Your task to perform on an android device: open app "File Manager" (install if not already installed) Image 0: 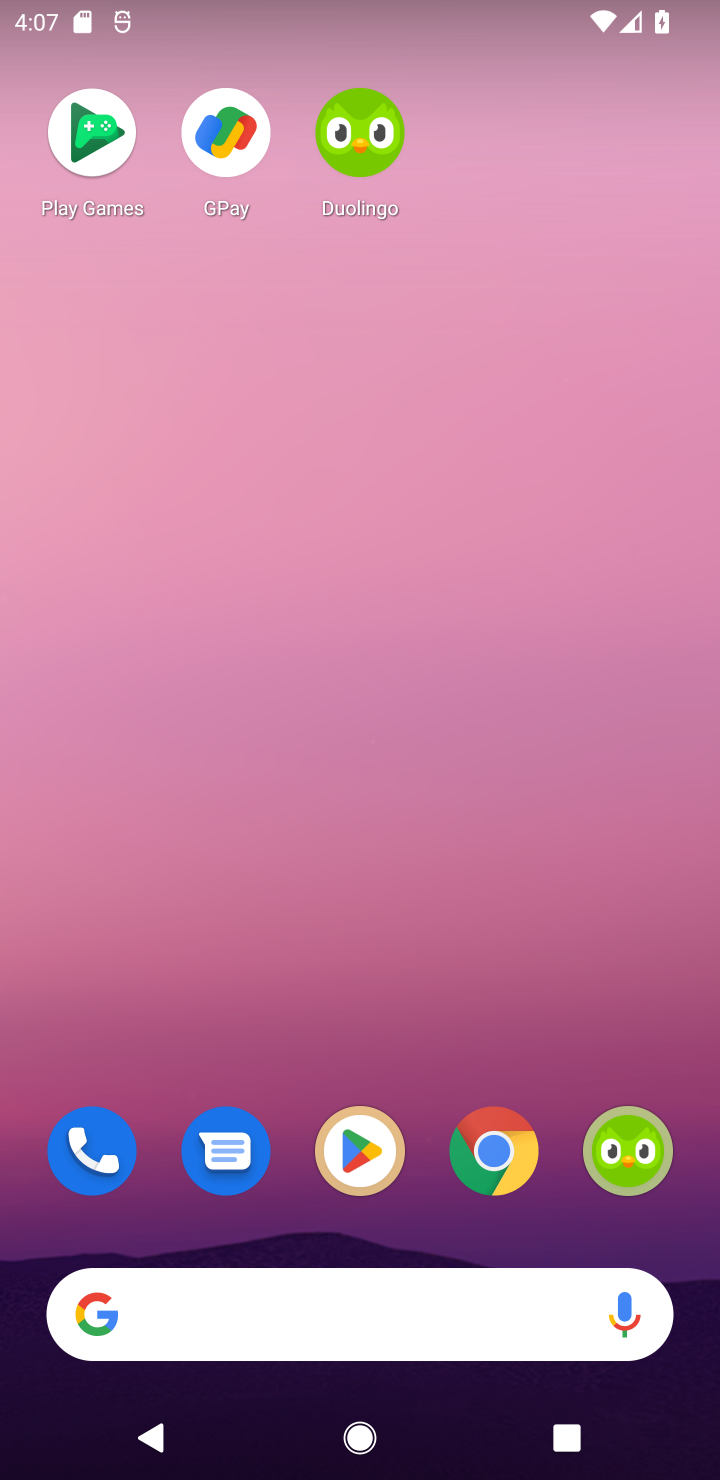
Step 0: click (374, 1169)
Your task to perform on an android device: open app "File Manager" (install if not already installed) Image 1: 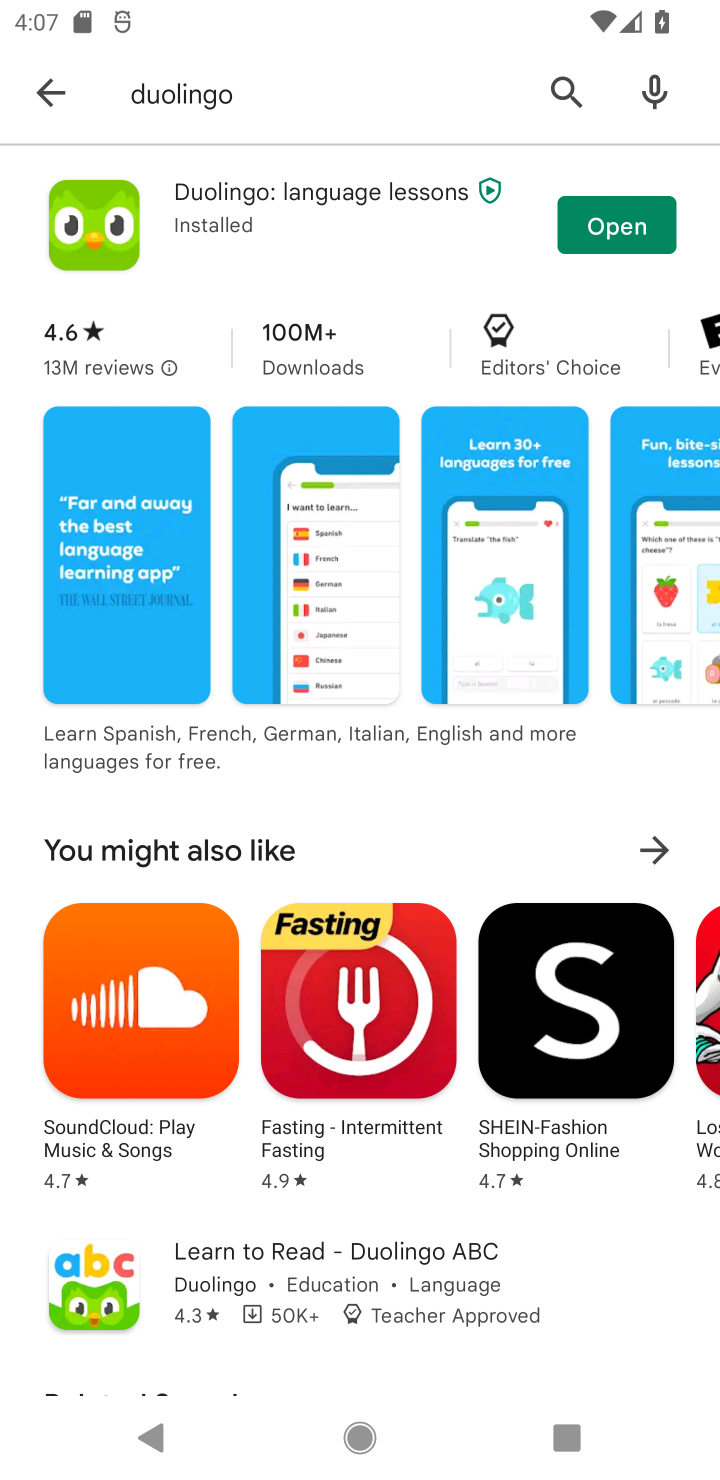
Step 1: click (31, 118)
Your task to perform on an android device: open app "File Manager" (install if not already installed) Image 2: 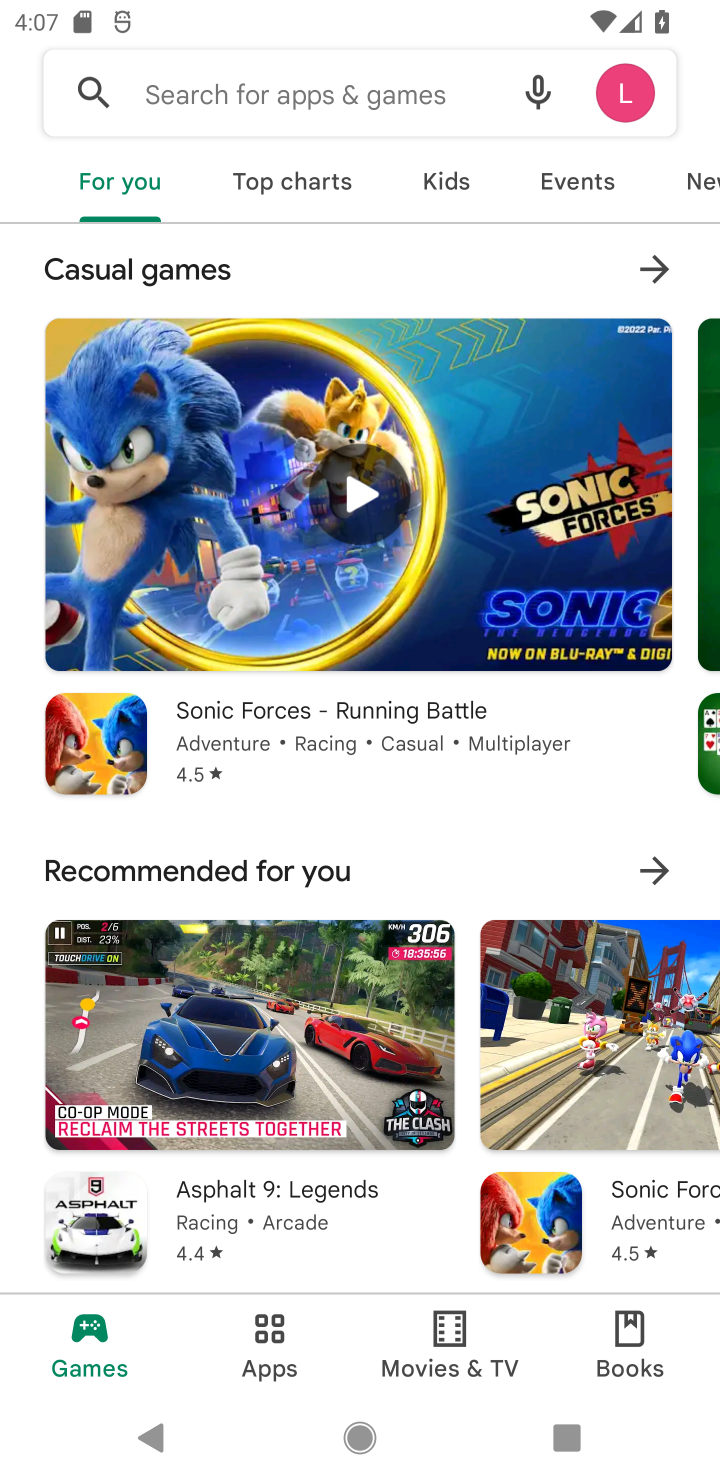
Step 2: click (288, 113)
Your task to perform on an android device: open app "File Manager" (install if not already installed) Image 3: 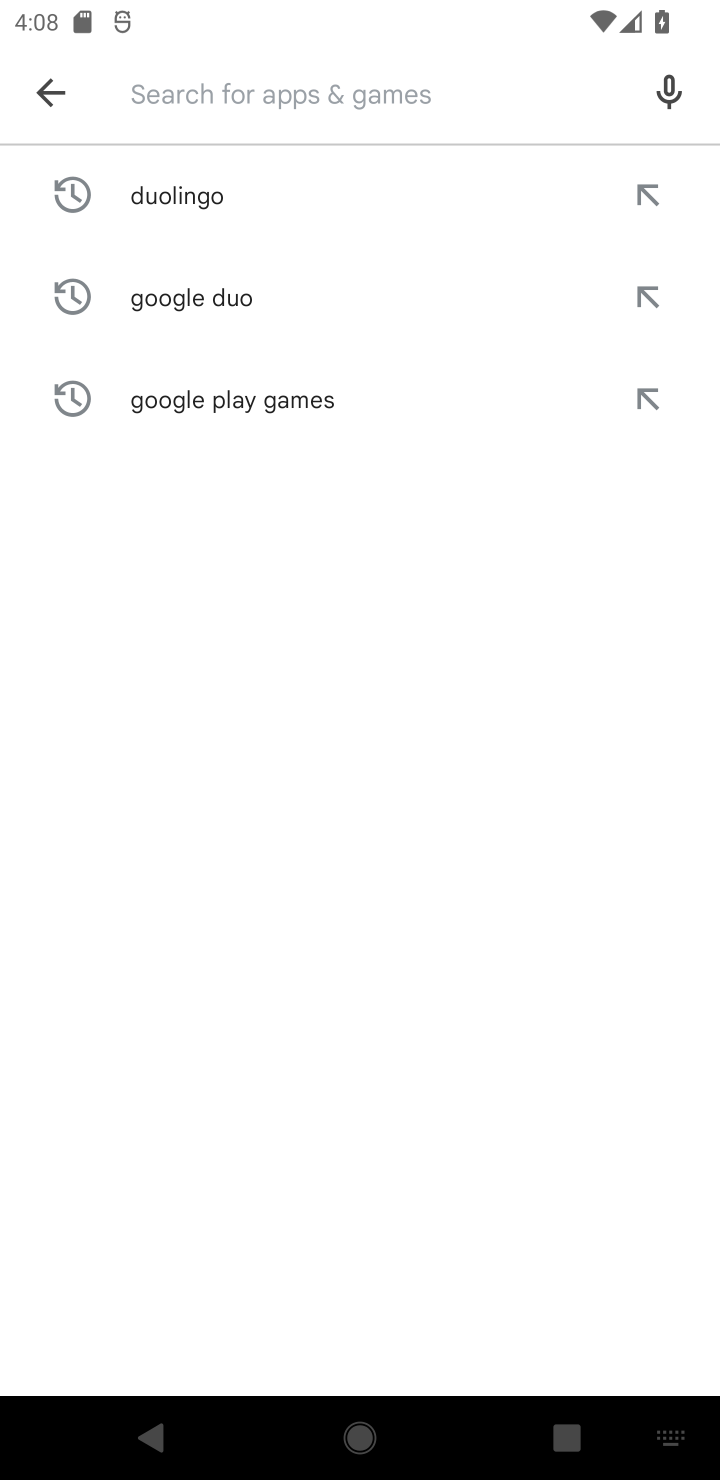
Step 3: type "File Manager"
Your task to perform on an android device: open app "File Manager" (install if not already installed) Image 4: 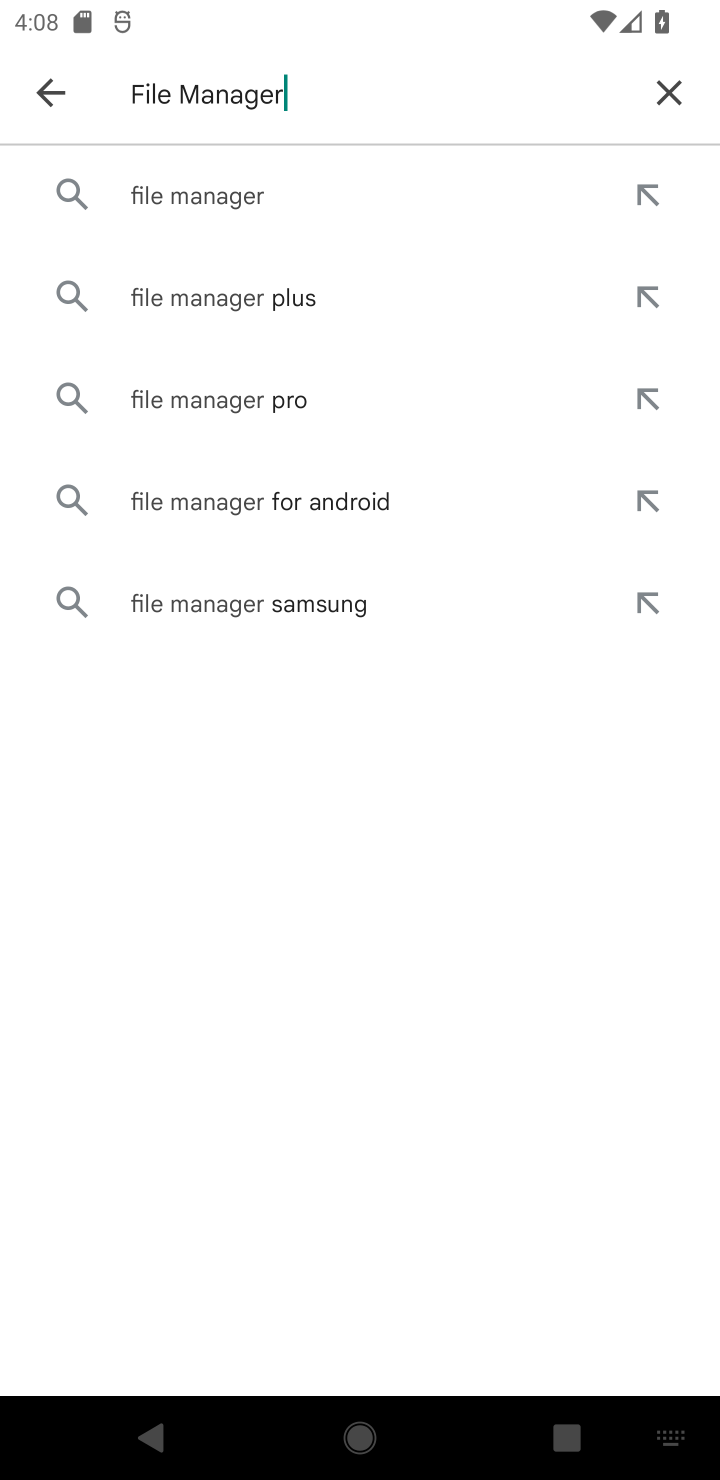
Step 4: click (176, 197)
Your task to perform on an android device: open app "File Manager" (install if not already installed) Image 5: 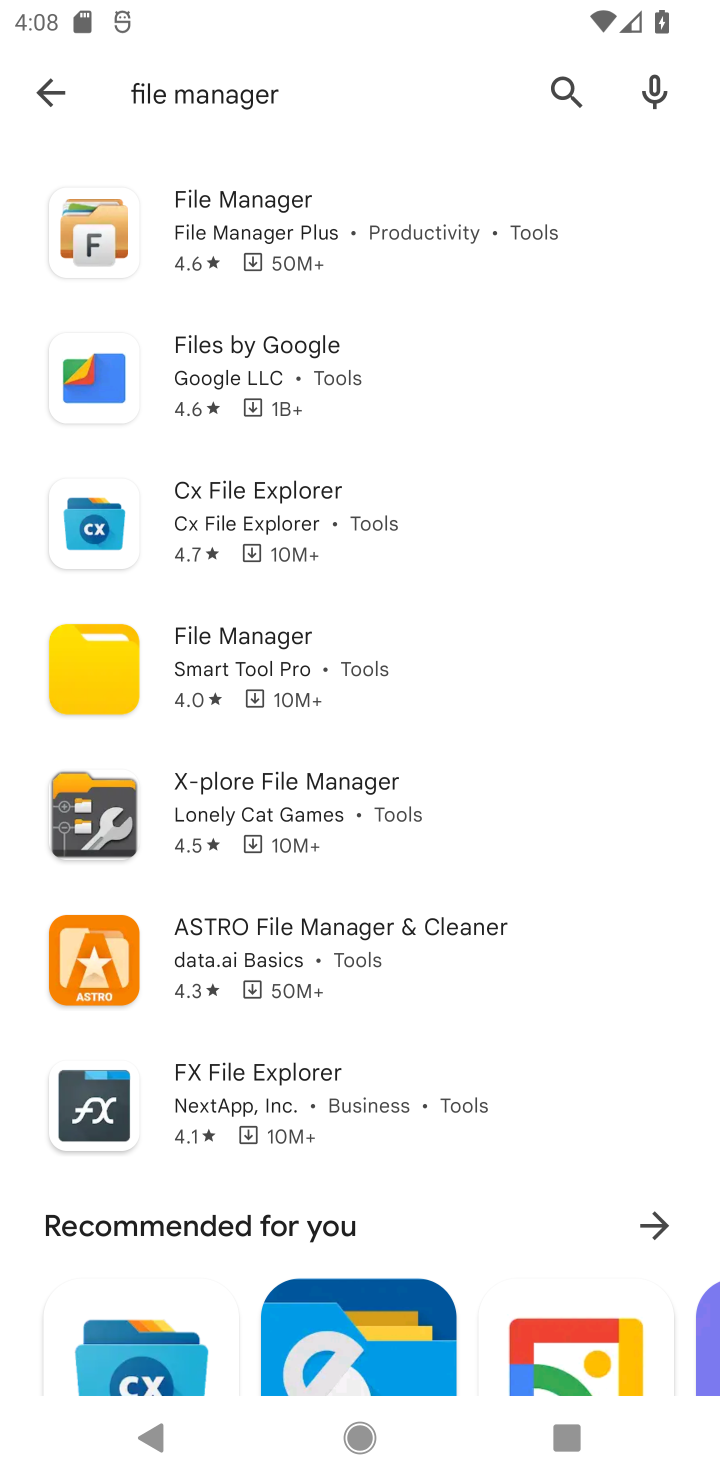
Step 5: click (176, 197)
Your task to perform on an android device: open app "File Manager" (install if not already installed) Image 6: 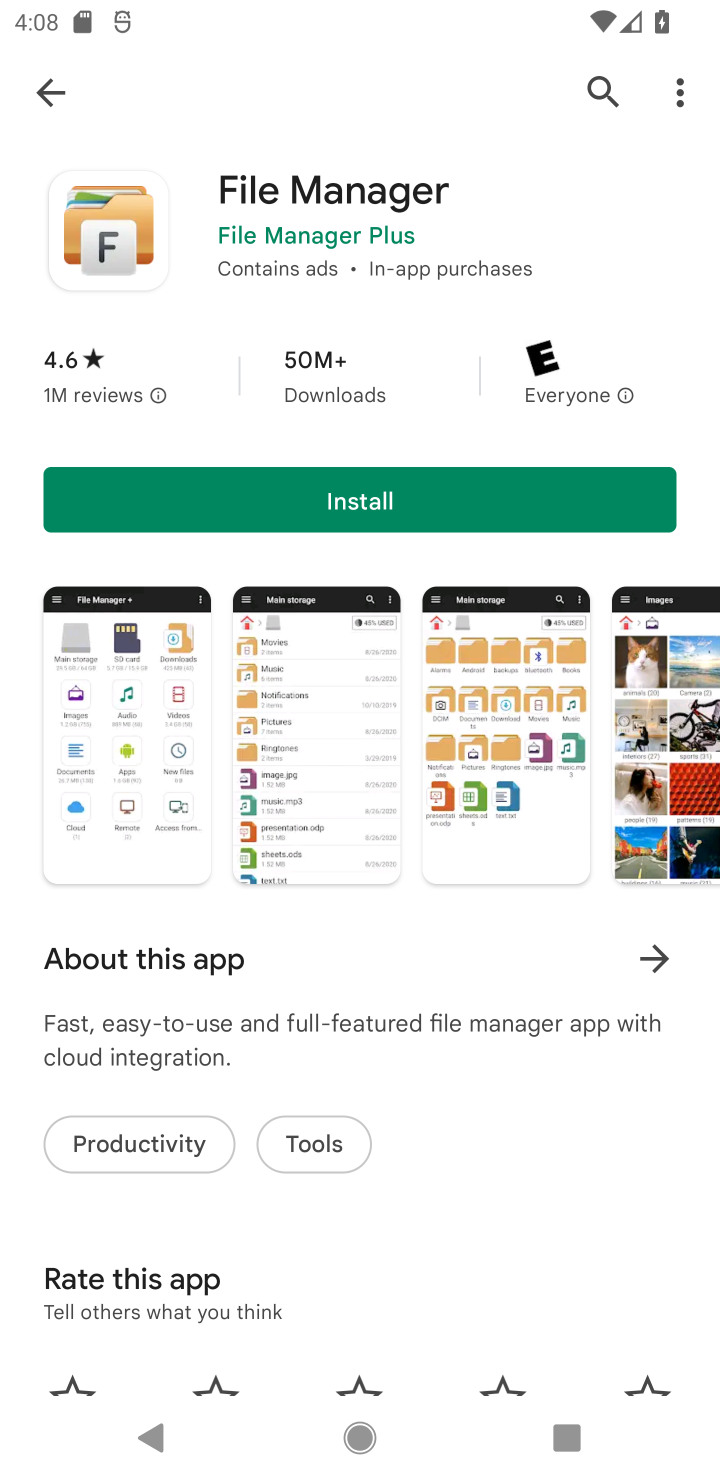
Step 6: click (184, 492)
Your task to perform on an android device: open app "File Manager" (install if not already installed) Image 7: 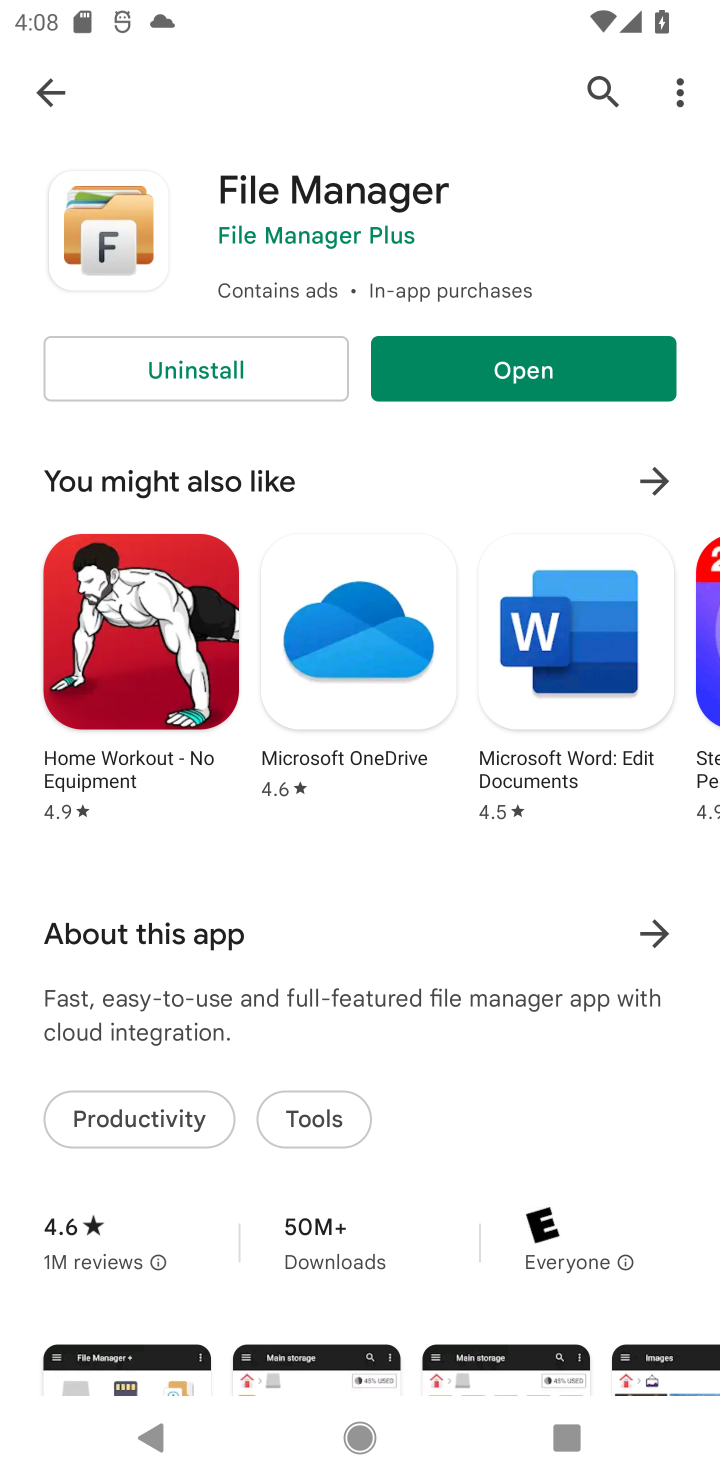
Step 7: click (490, 344)
Your task to perform on an android device: open app "File Manager" (install if not already installed) Image 8: 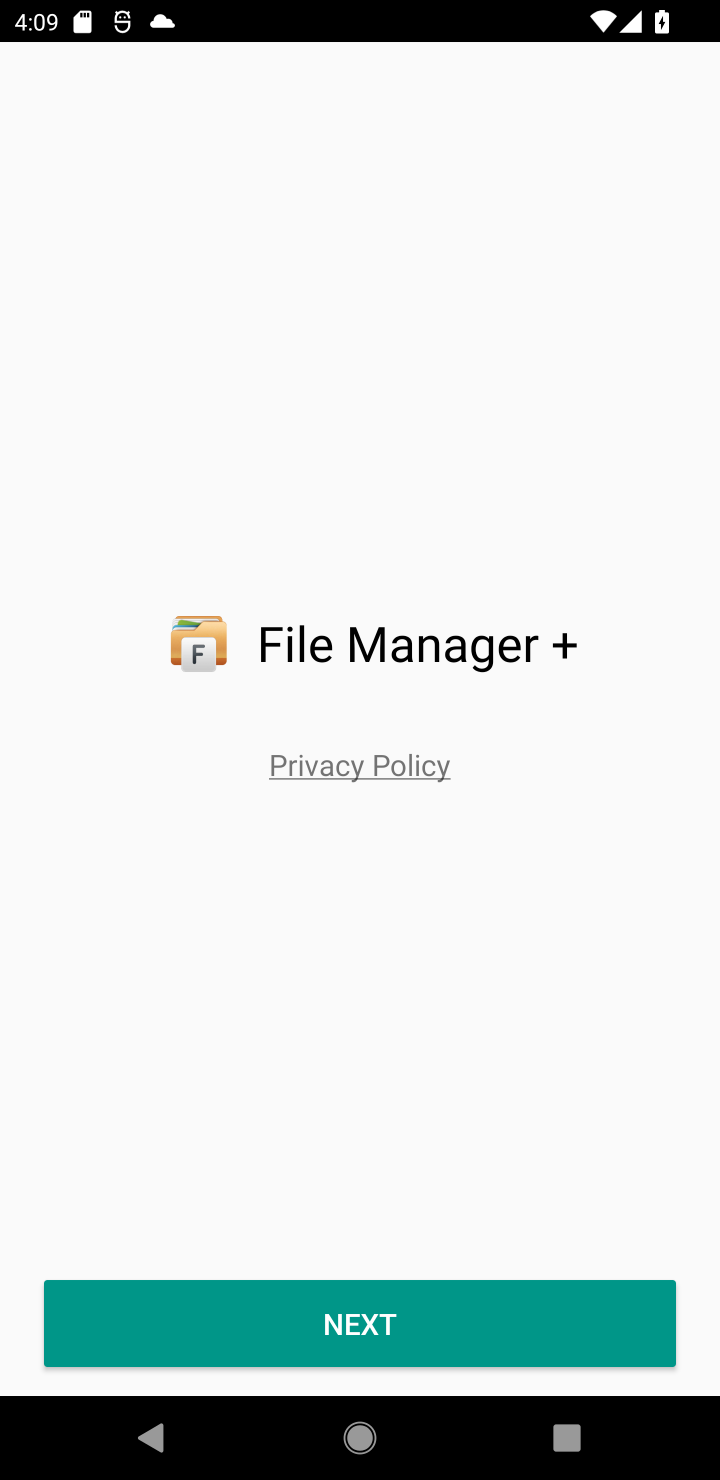
Step 8: click (341, 1320)
Your task to perform on an android device: open app "File Manager" (install if not already installed) Image 9: 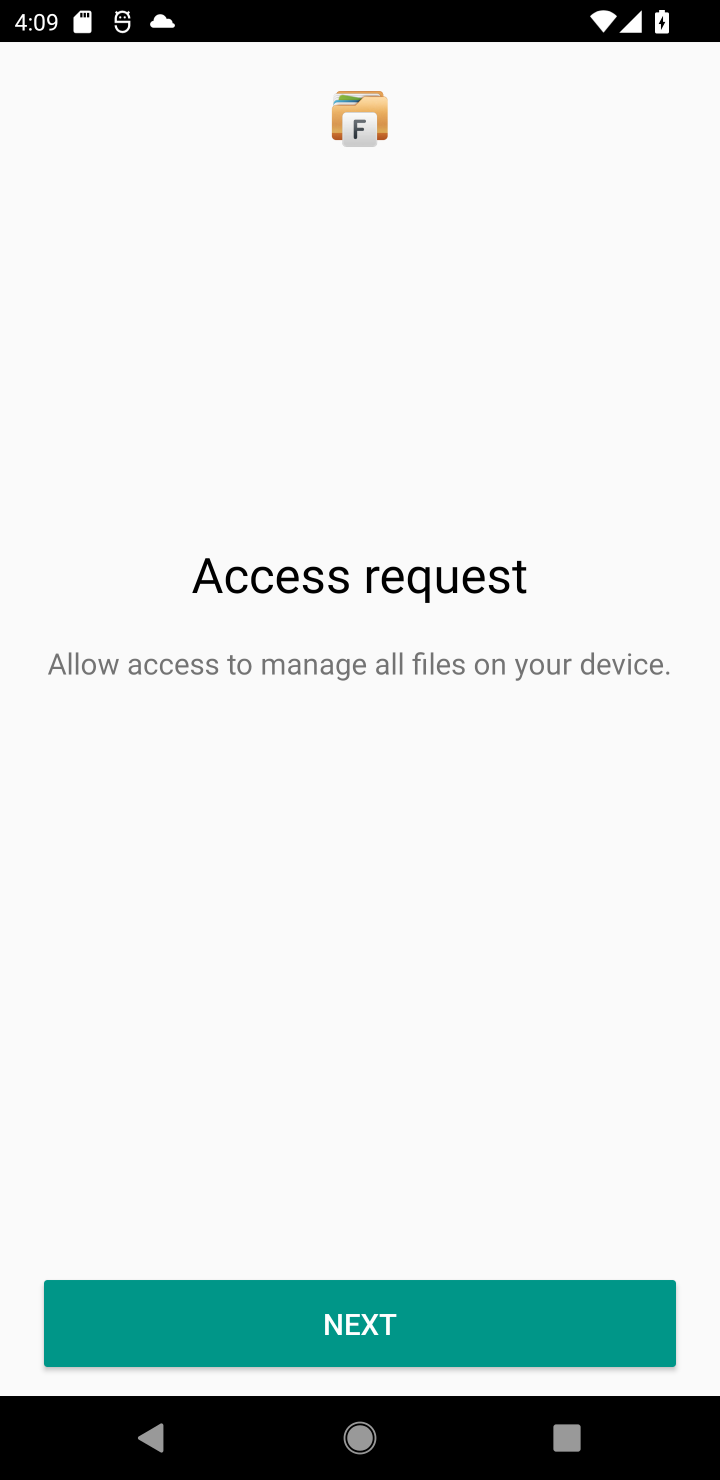
Step 9: click (481, 1341)
Your task to perform on an android device: open app "File Manager" (install if not already installed) Image 10: 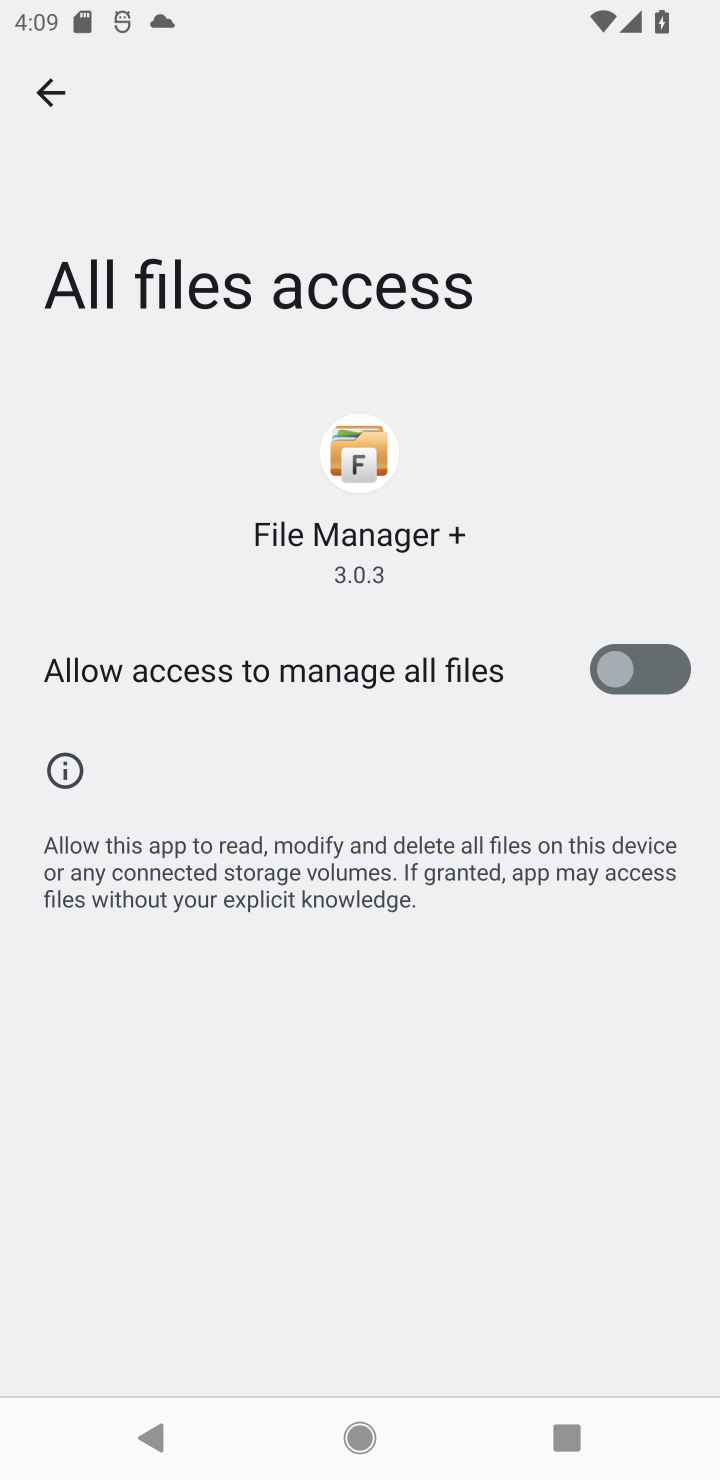
Step 10: click (613, 671)
Your task to perform on an android device: open app "File Manager" (install if not already installed) Image 11: 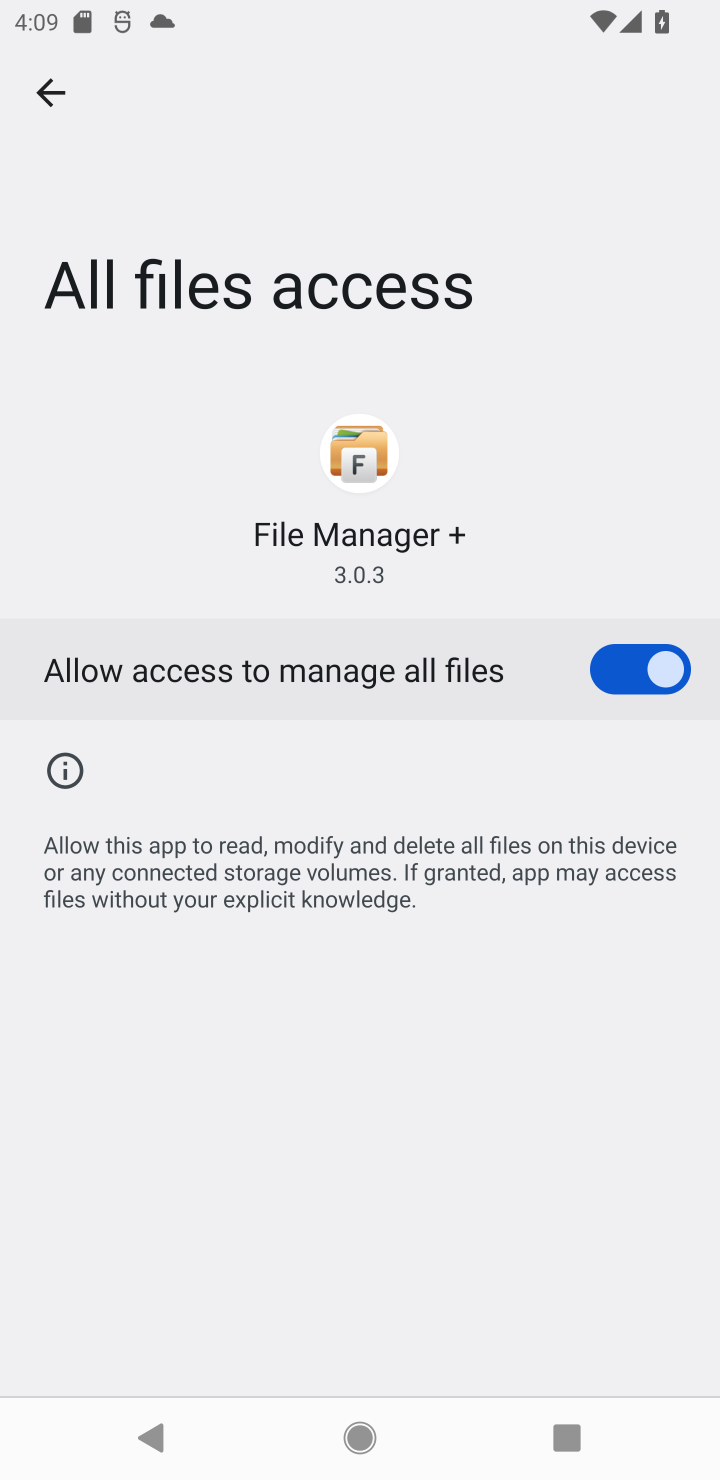
Step 11: click (613, 671)
Your task to perform on an android device: open app "File Manager" (install if not already installed) Image 12: 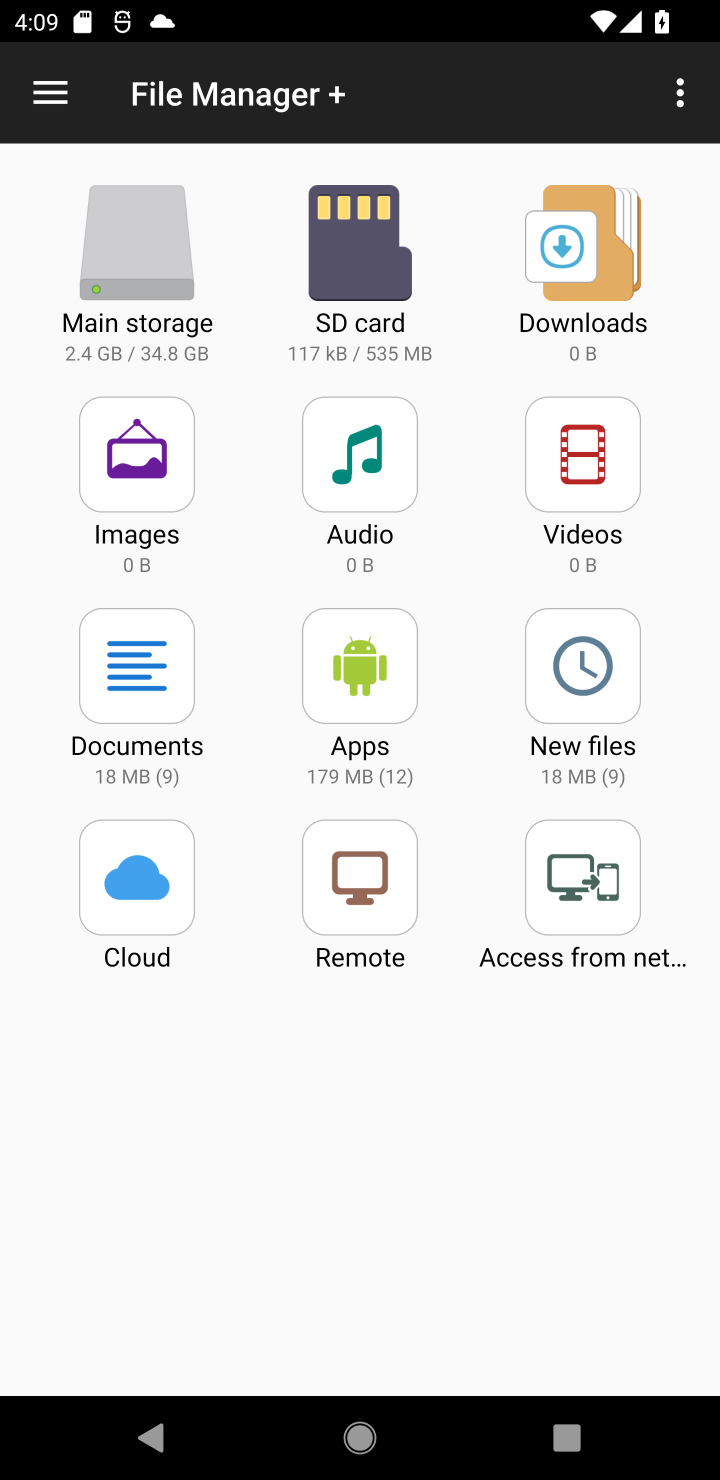
Step 12: task complete